Your task to perform on an android device: change keyboard looks Image 0: 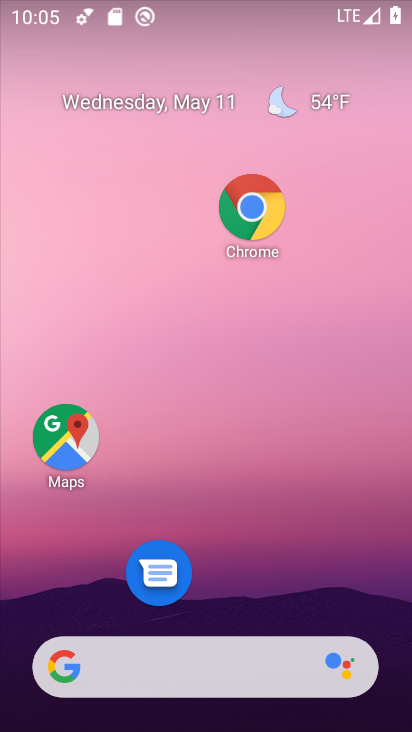
Step 0: drag from (311, 667) to (293, 121)
Your task to perform on an android device: change keyboard looks Image 1: 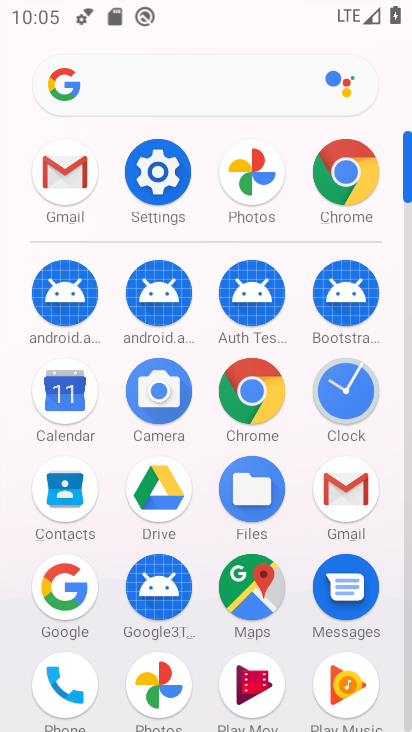
Step 1: click (154, 156)
Your task to perform on an android device: change keyboard looks Image 2: 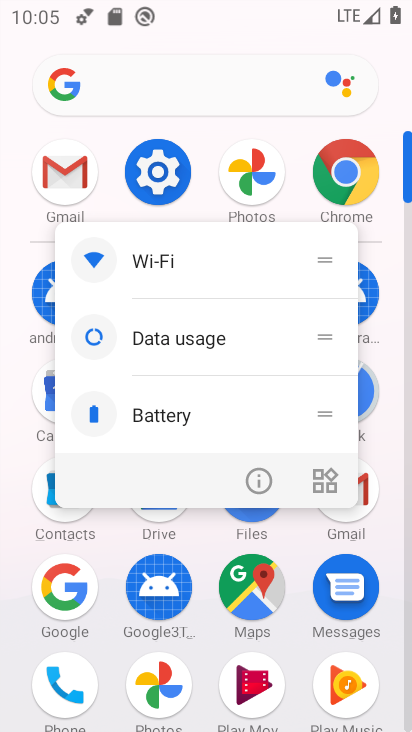
Step 2: click (152, 179)
Your task to perform on an android device: change keyboard looks Image 3: 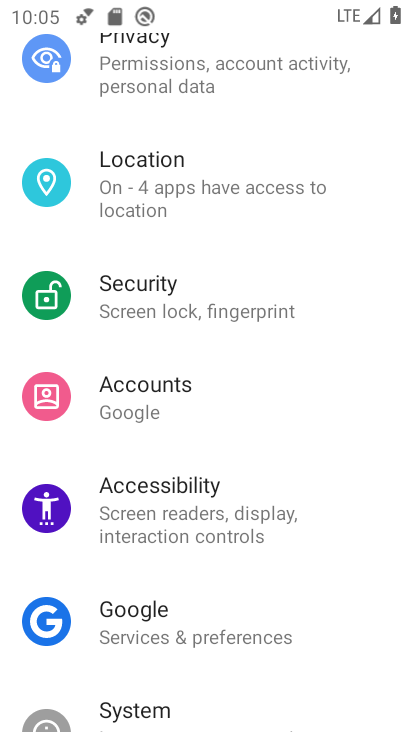
Step 3: drag from (191, 270) to (334, 2)
Your task to perform on an android device: change keyboard looks Image 4: 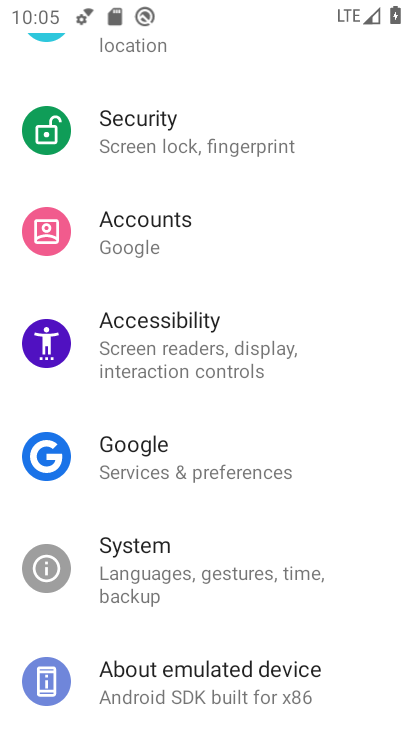
Step 4: click (203, 573)
Your task to perform on an android device: change keyboard looks Image 5: 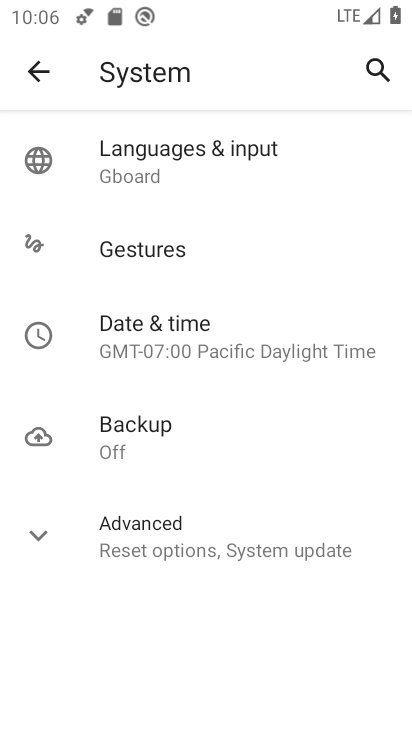
Step 5: click (232, 166)
Your task to perform on an android device: change keyboard looks Image 6: 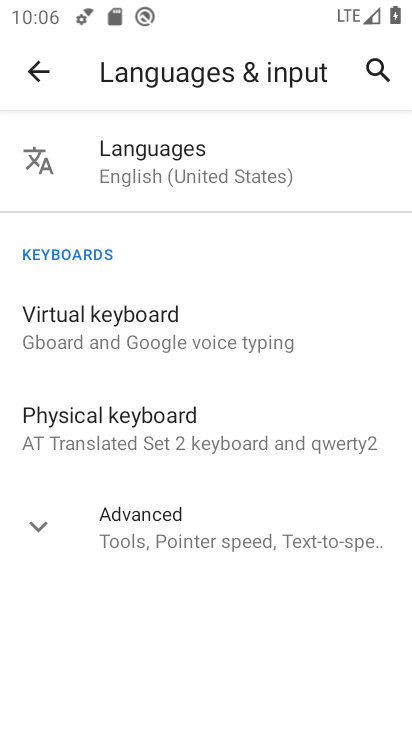
Step 6: click (220, 342)
Your task to perform on an android device: change keyboard looks Image 7: 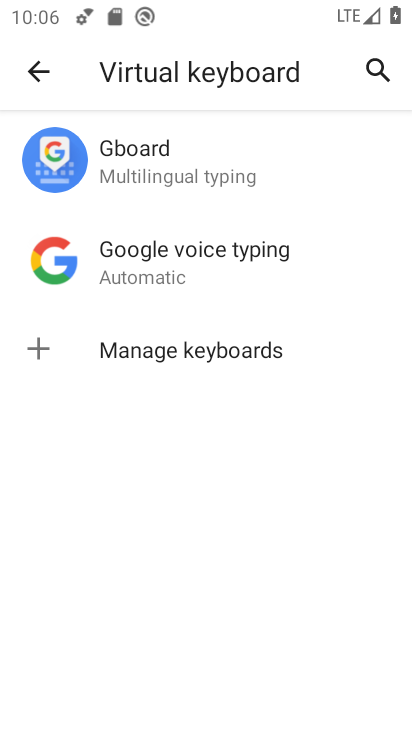
Step 7: click (235, 153)
Your task to perform on an android device: change keyboard looks Image 8: 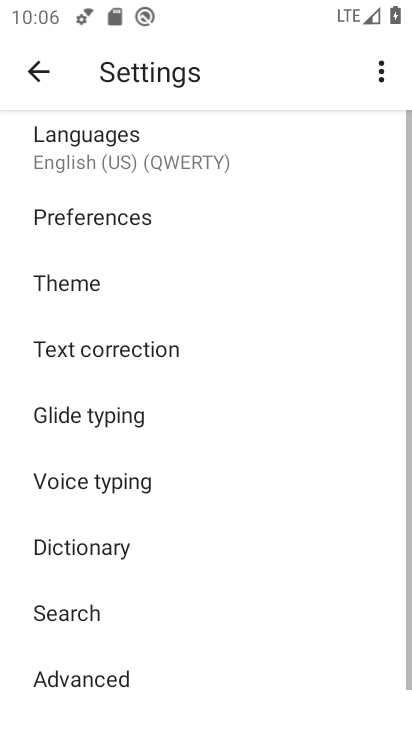
Step 8: drag from (160, 289) to (23, 289)
Your task to perform on an android device: change keyboard looks Image 9: 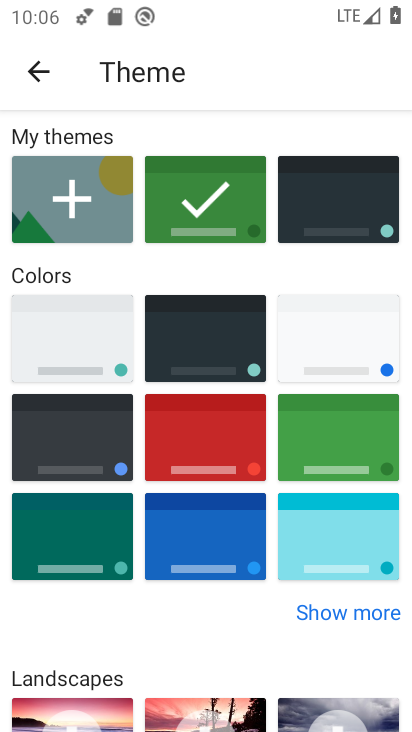
Step 9: click (169, 440)
Your task to perform on an android device: change keyboard looks Image 10: 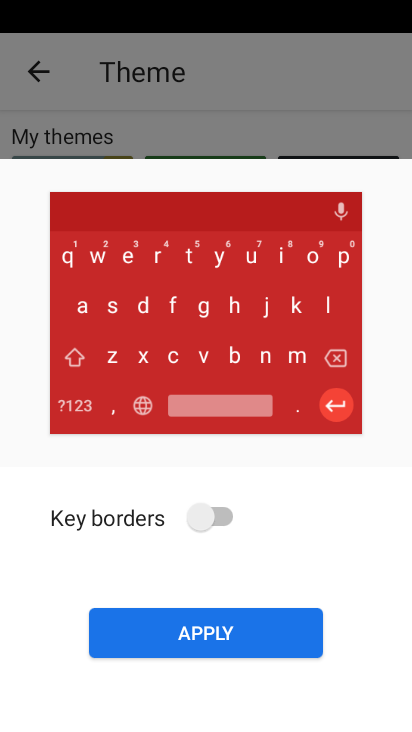
Step 10: click (220, 635)
Your task to perform on an android device: change keyboard looks Image 11: 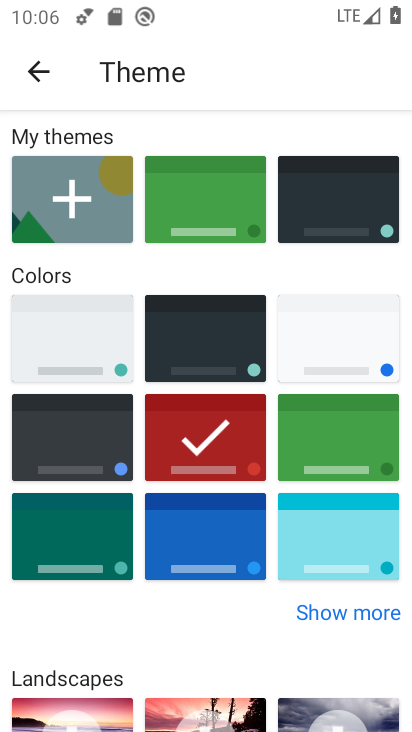
Step 11: task complete